Your task to perform on an android device: remove spam from my inbox in the gmail app Image 0: 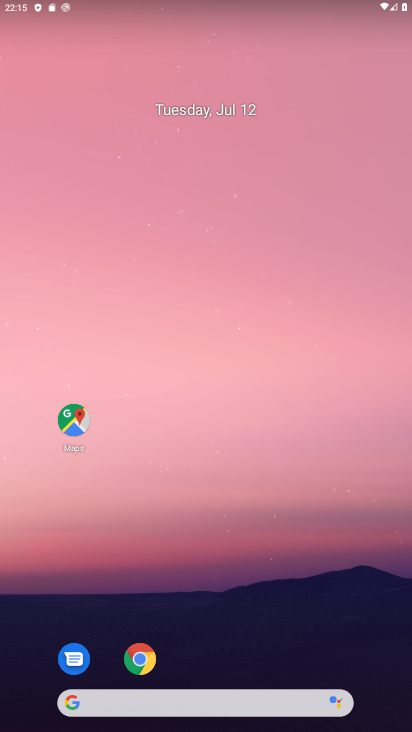
Step 0: drag from (255, 610) to (263, 314)
Your task to perform on an android device: remove spam from my inbox in the gmail app Image 1: 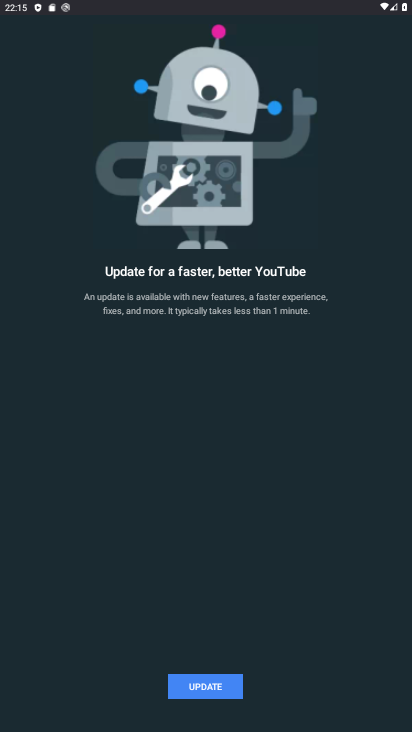
Step 1: press home button
Your task to perform on an android device: remove spam from my inbox in the gmail app Image 2: 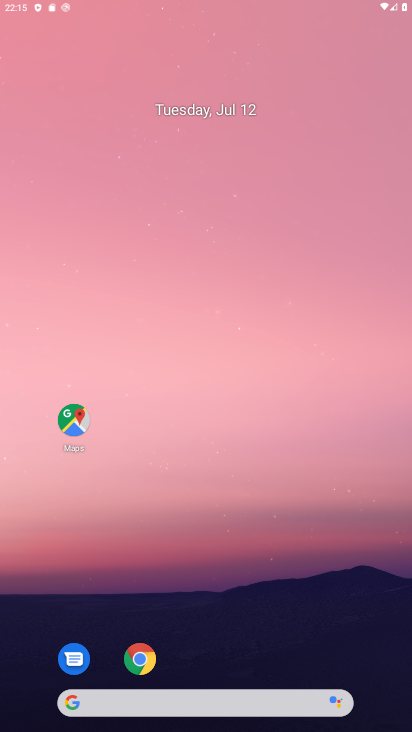
Step 2: drag from (288, 657) to (297, 293)
Your task to perform on an android device: remove spam from my inbox in the gmail app Image 3: 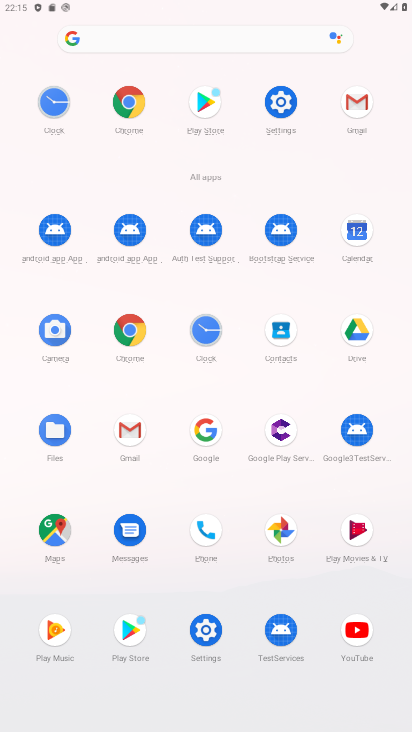
Step 3: click (362, 97)
Your task to perform on an android device: remove spam from my inbox in the gmail app Image 4: 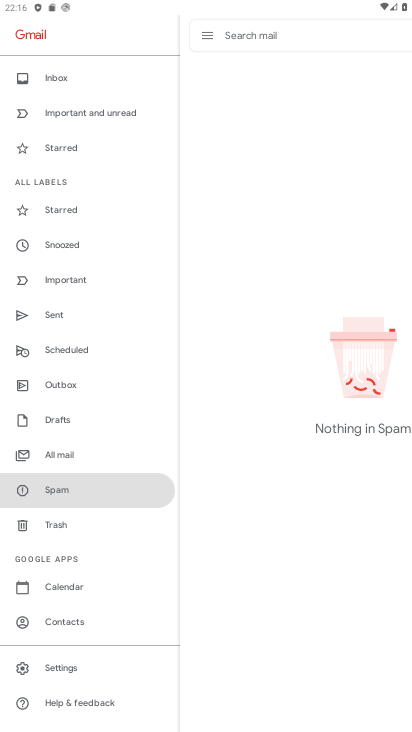
Step 4: task complete